Your task to perform on an android device: Open battery settings Image 0: 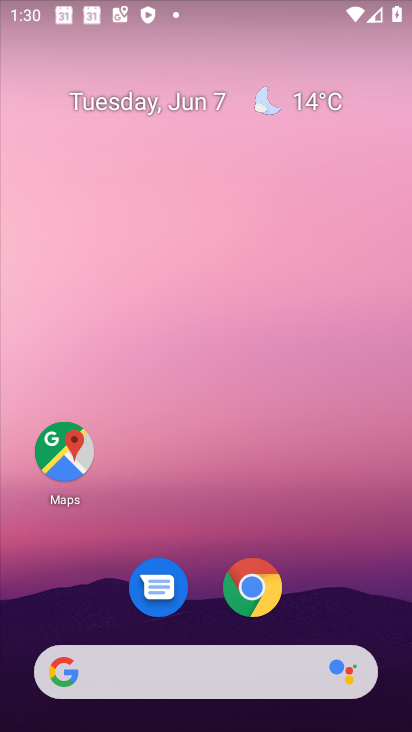
Step 0: click (317, 264)
Your task to perform on an android device: Open battery settings Image 1: 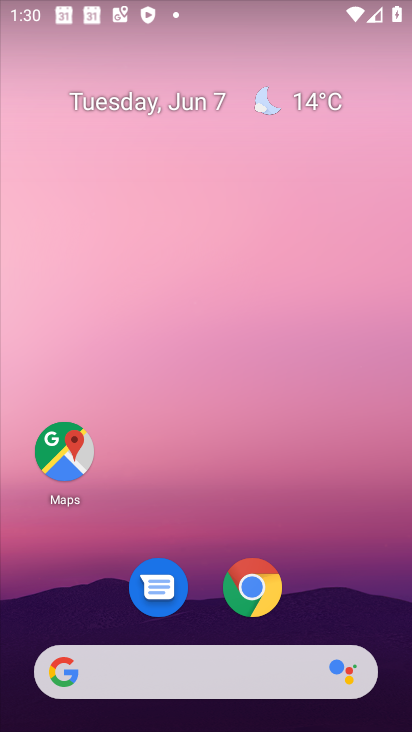
Step 1: drag from (232, 602) to (208, 142)
Your task to perform on an android device: Open battery settings Image 2: 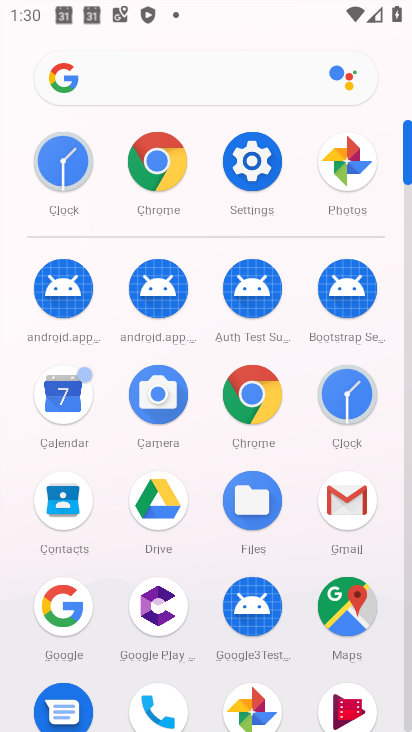
Step 2: click (269, 177)
Your task to perform on an android device: Open battery settings Image 3: 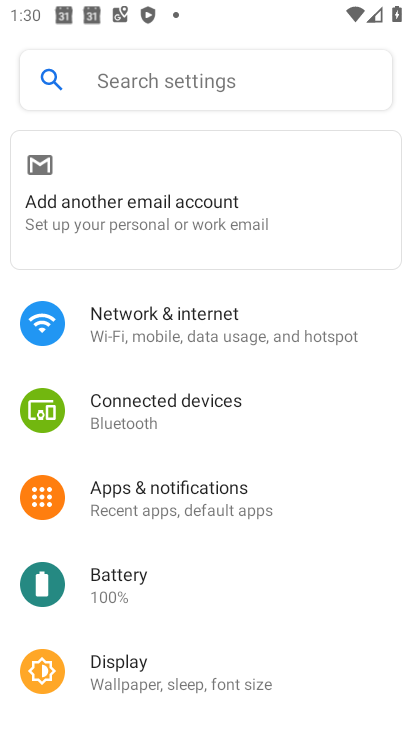
Step 3: click (160, 605)
Your task to perform on an android device: Open battery settings Image 4: 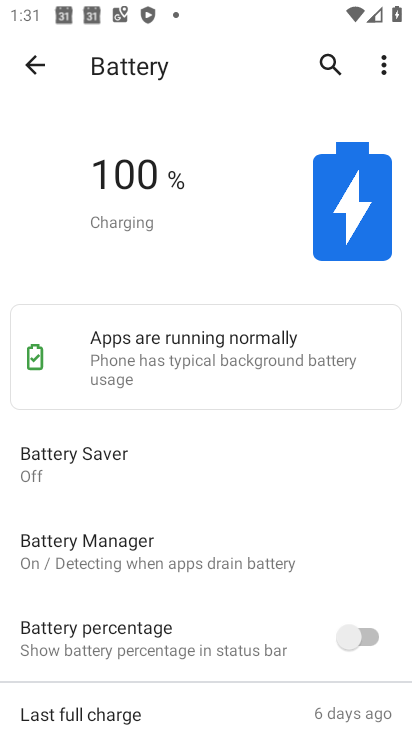
Step 4: task complete